Your task to perform on an android device: turn vacation reply on in the gmail app Image 0: 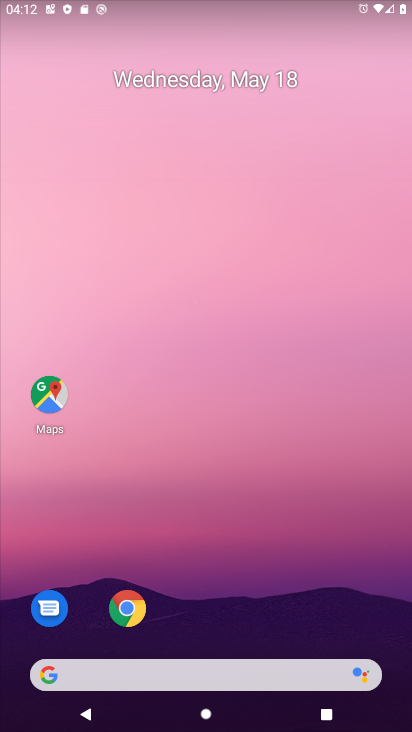
Step 0: drag from (215, 616) to (384, 120)
Your task to perform on an android device: turn vacation reply on in the gmail app Image 1: 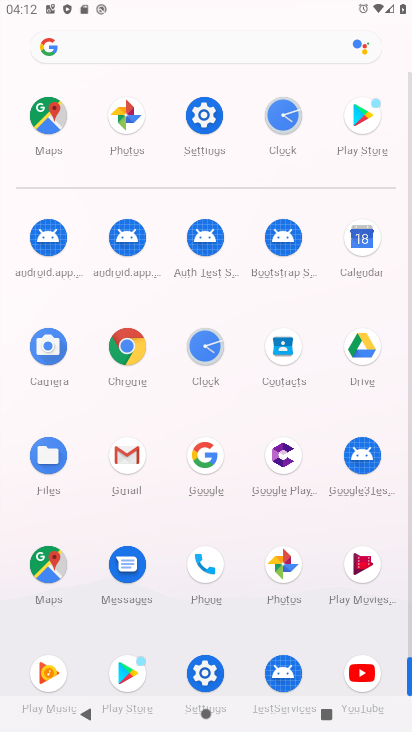
Step 1: click (136, 465)
Your task to perform on an android device: turn vacation reply on in the gmail app Image 2: 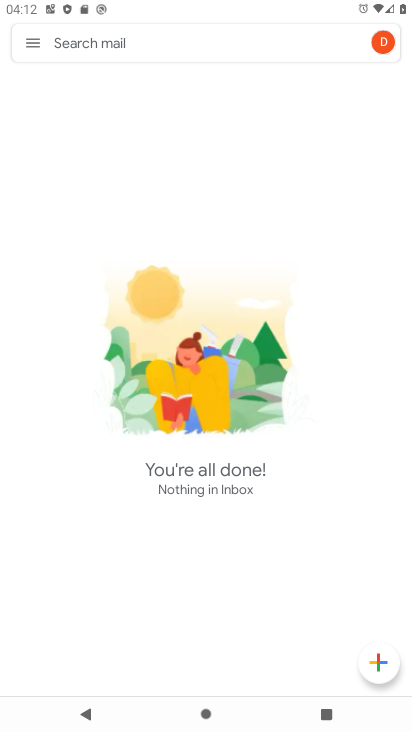
Step 2: click (38, 49)
Your task to perform on an android device: turn vacation reply on in the gmail app Image 3: 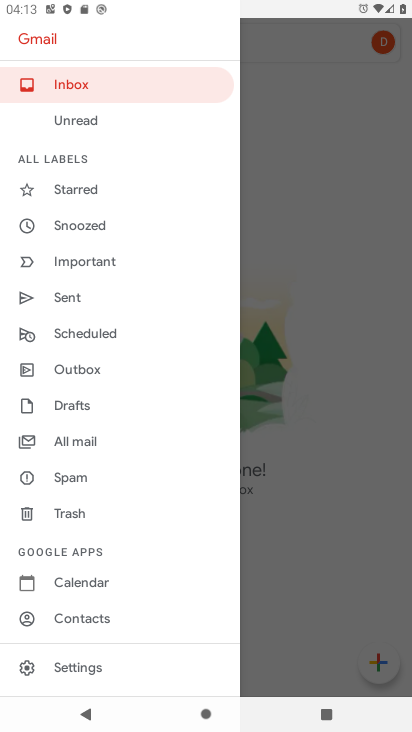
Step 3: click (74, 674)
Your task to perform on an android device: turn vacation reply on in the gmail app Image 4: 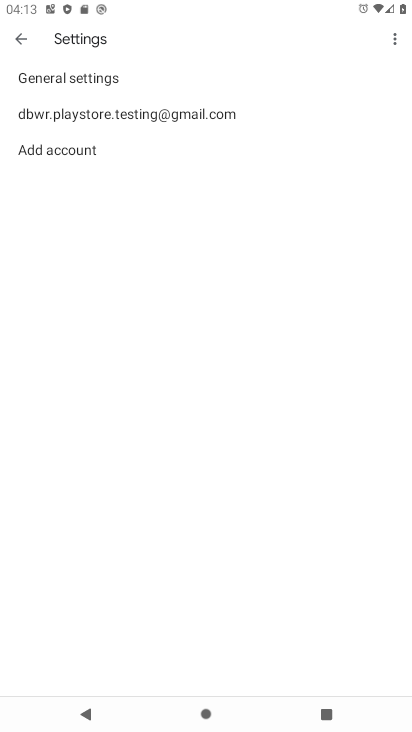
Step 4: click (257, 107)
Your task to perform on an android device: turn vacation reply on in the gmail app Image 5: 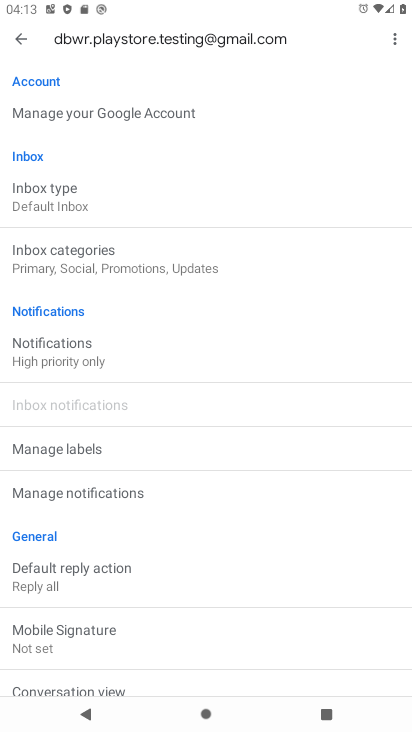
Step 5: drag from (151, 666) to (324, 121)
Your task to perform on an android device: turn vacation reply on in the gmail app Image 6: 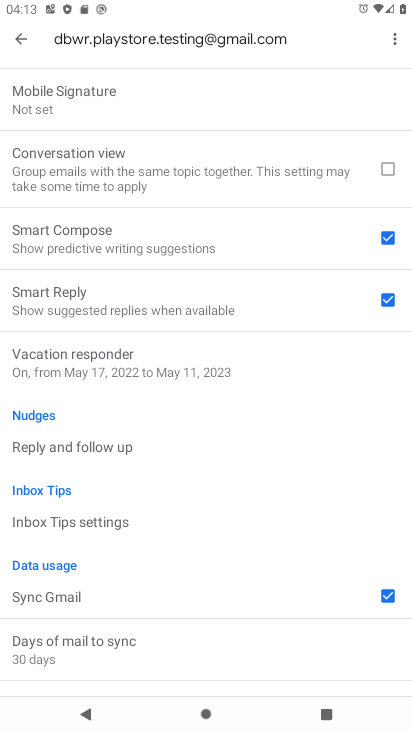
Step 6: click (170, 366)
Your task to perform on an android device: turn vacation reply on in the gmail app Image 7: 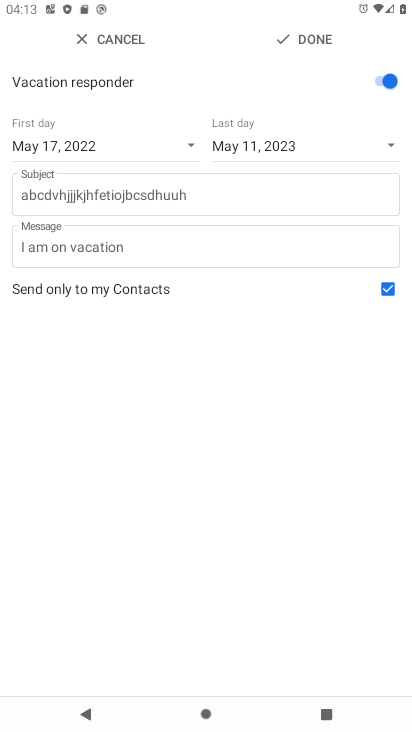
Step 7: click (336, 31)
Your task to perform on an android device: turn vacation reply on in the gmail app Image 8: 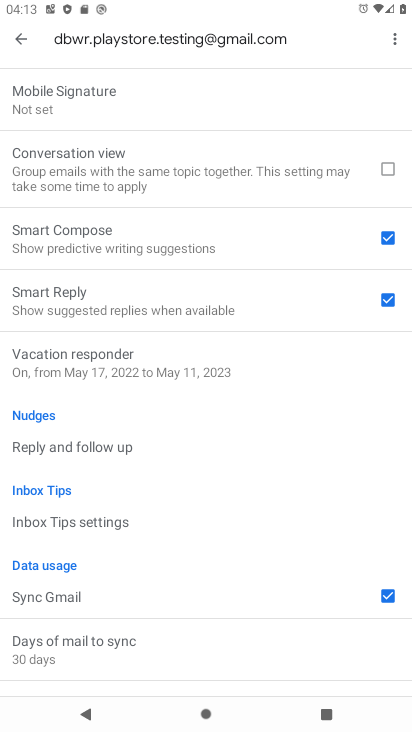
Step 8: task complete